Your task to perform on an android device: allow cookies in the chrome app Image 0: 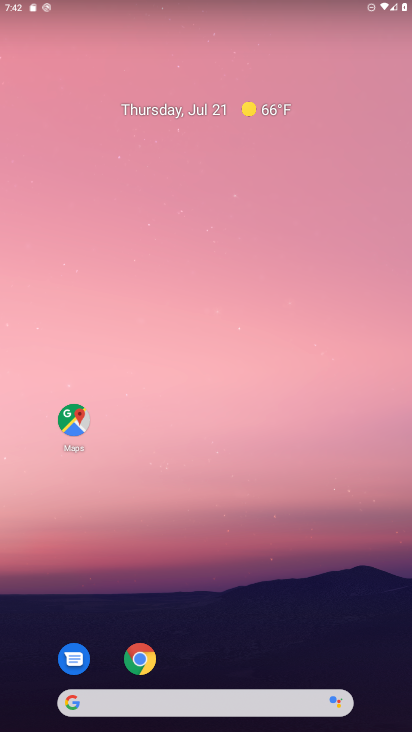
Step 0: drag from (191, 678) to (285, 114)
Your task to perform on an android device: allow cookies in the chrome app Image 1: 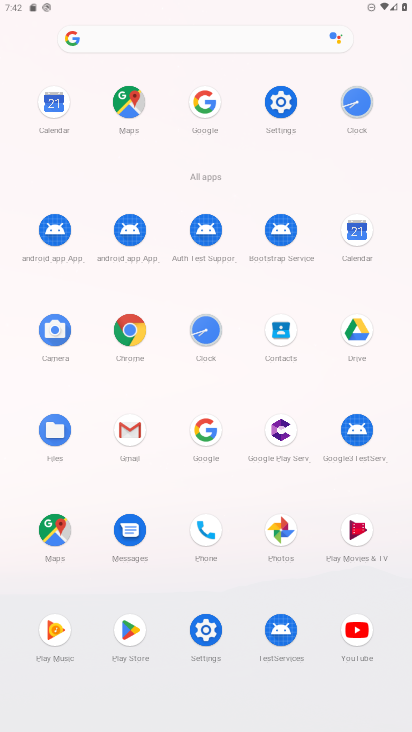
Step 1: click (124, 323)
Your task to perform on an android device: allow cookies in the chrome app Image 2: 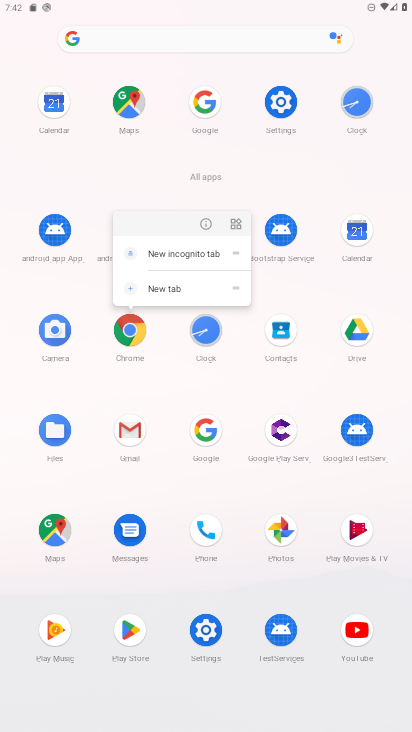
Step 2: click (206, 226)
Your task to perform on an android device: allow cookies in the chrome app Image 3: 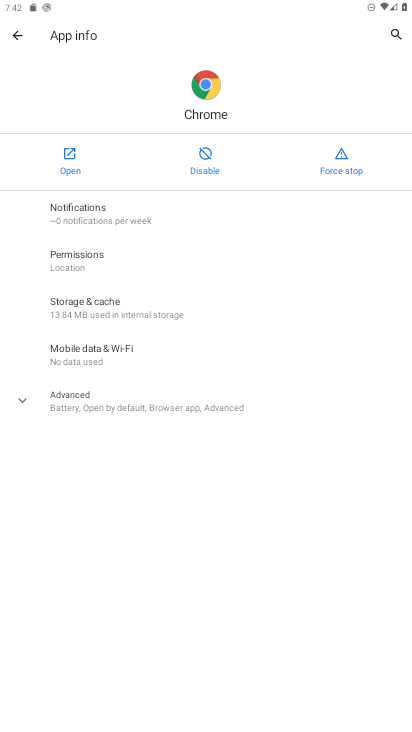
Step 3: click (69, 158)
Your task to perform on an android device: allow cookies in the chrome app Image 4: 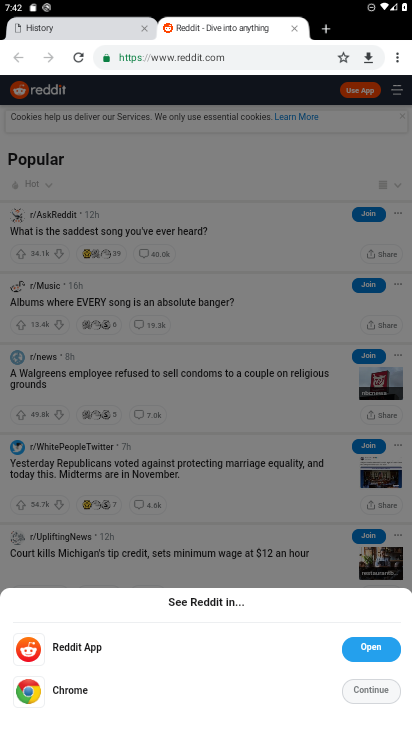
Step 4: task complete